Your task to perform on an android device: Open Youtube and go to the subscriptions tab Image 0: 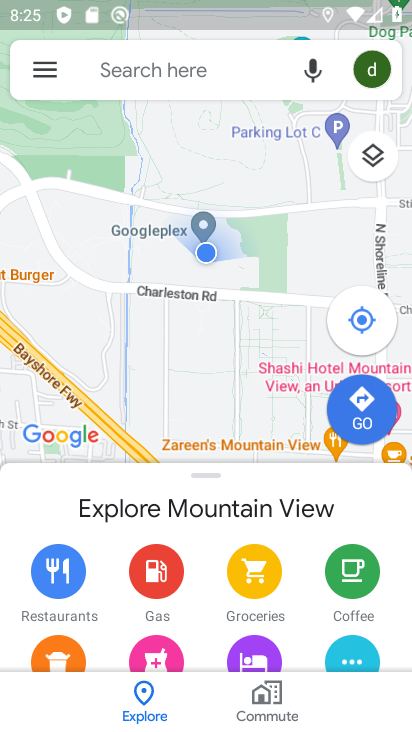
Step 0: press home button
Your task to perform on an android device: Open Youtube and go to the subscriptions tab Image 1: 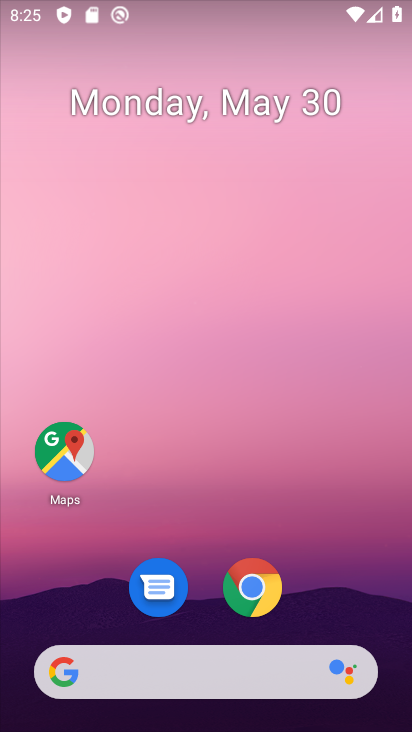
Step 1: drag from (210, 545) to (247, 142)
Your task to perform on an android device: Open Youtube and go to the subscriptions tab Image 2: 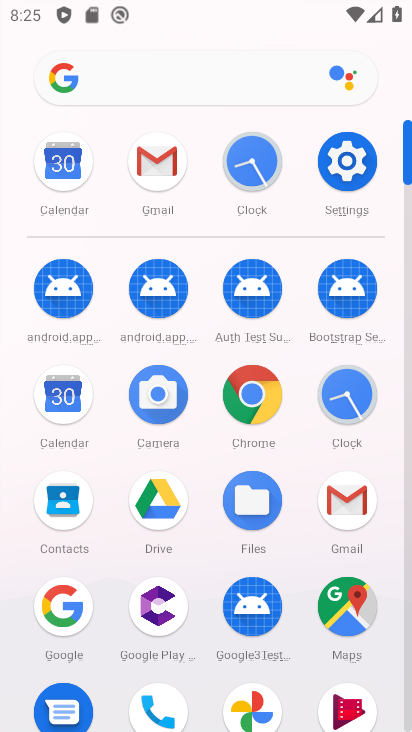
Step 2: drag from (203, 690) to (220, 271)
Your task to perform on an android device: Open Youtube and go to the subscriptions tab Image 3: 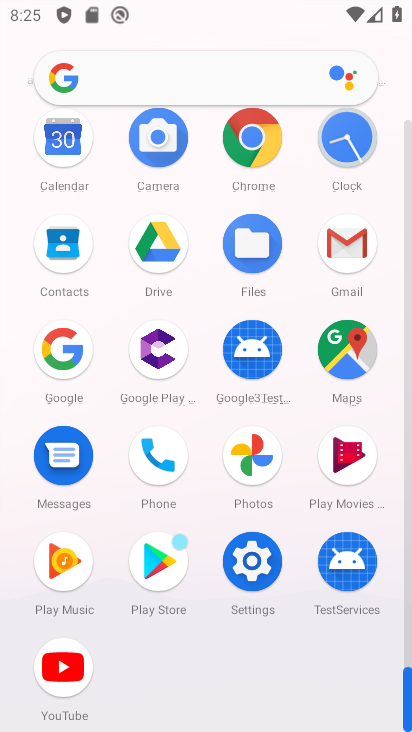
Step 3: click (70, 672)
Your task to perform on an android device: Open Youtube and go to the subscriptions tab Image 4: 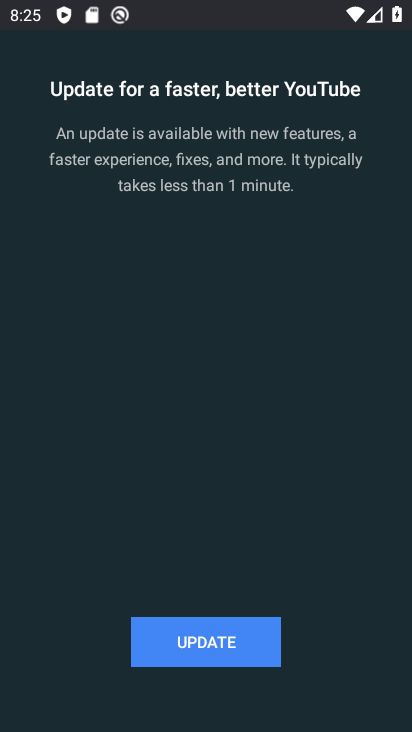
Step 4: click (178, 649)
Your task to perform on an android device: Open Youtube and go to the subscriptions tab Image 5: 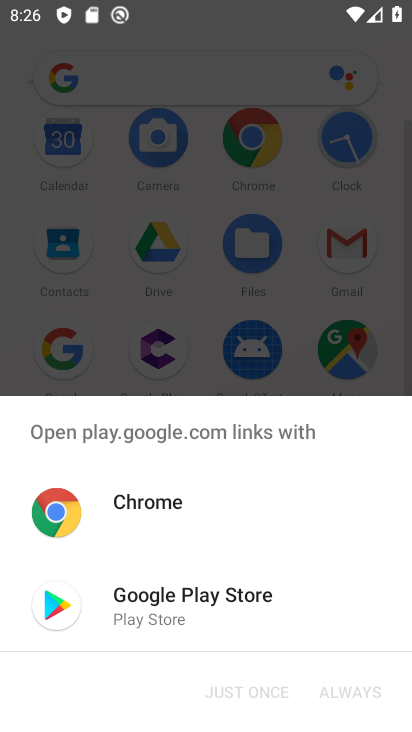
Step 5: click (212, 603)
Your task to perform on an android device: Open Youtube and go to the subscriptions tab Image 6: 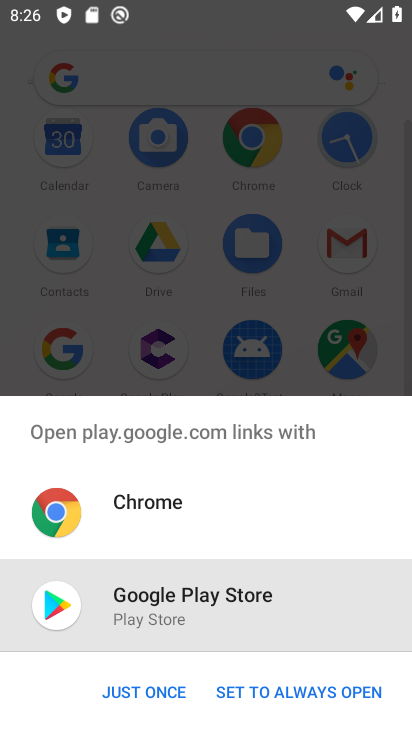
Step 6: click (153, 687)
Your task to perform on an android device: Open Youtube and go to the subscriptions tab Image 7: 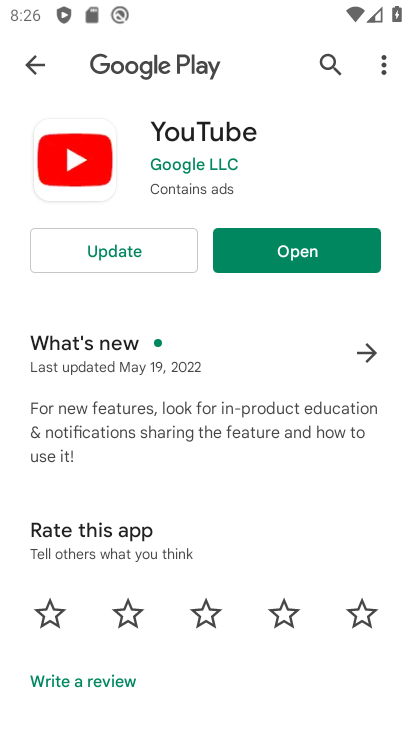
Step 7: click (147, 266)
Your task to perform on an android device: Open Youtube and go to the subscriptions tab Image 8: 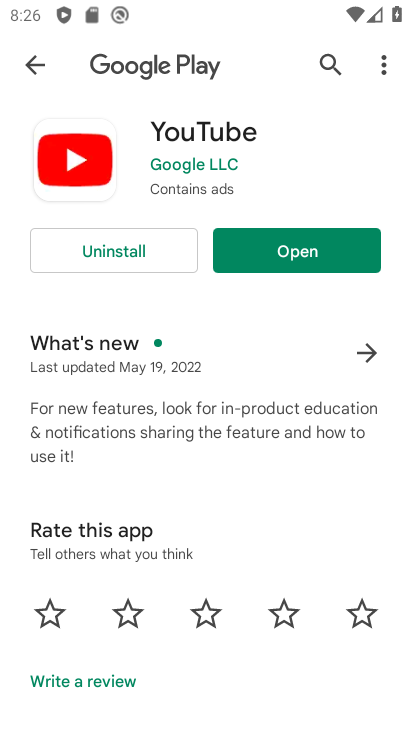
Step 8: click (248, 254)
Your task to perform on an android device: Open Youtube and go to the subscriptions tab Image 9: 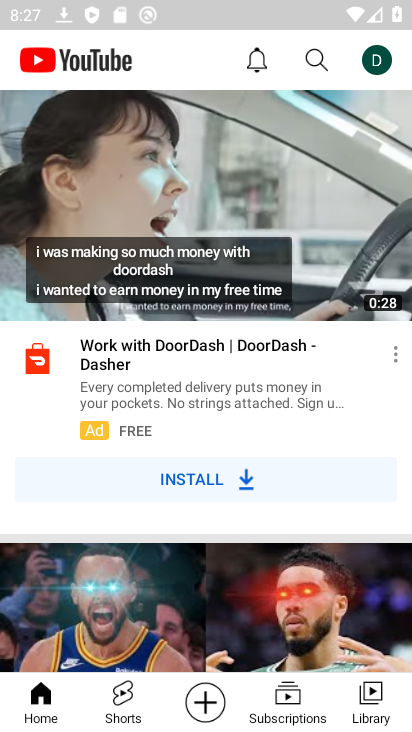
Step 9: click (284, 711)
Your task to perform on an android device: Open Youtube and go to the subscriptions tab Image 10: 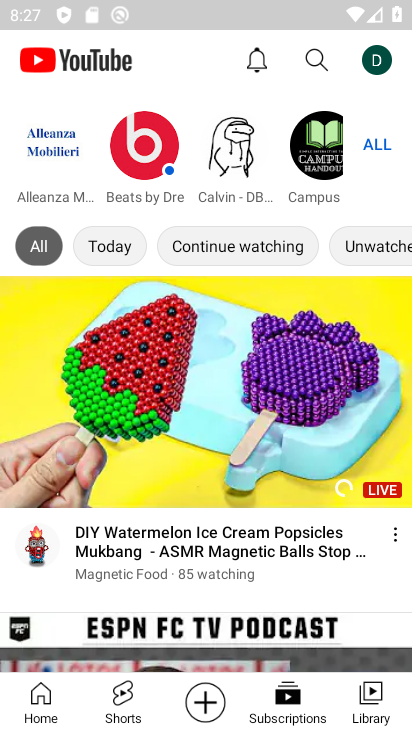
Step 10: task complete